Your task to perform on an android device: turn on airplane mode Image 0: 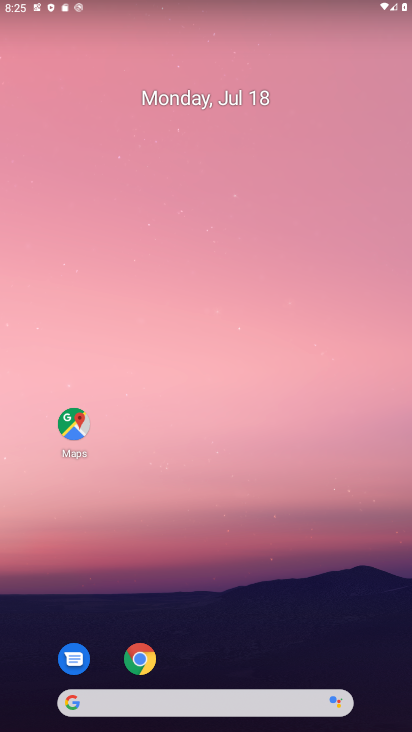
Step 0: click (145, 150)
Your task to perform on an android device: turn on airplane mode Image 1: 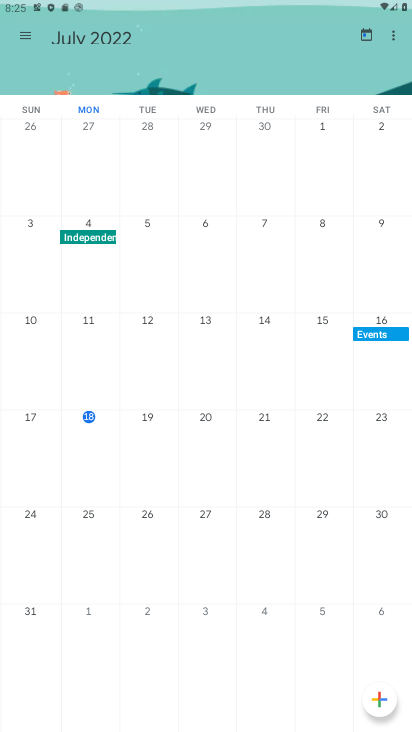
Step 1: press back button
Your task to perform on an android device: turn on airplane mode Image 2: 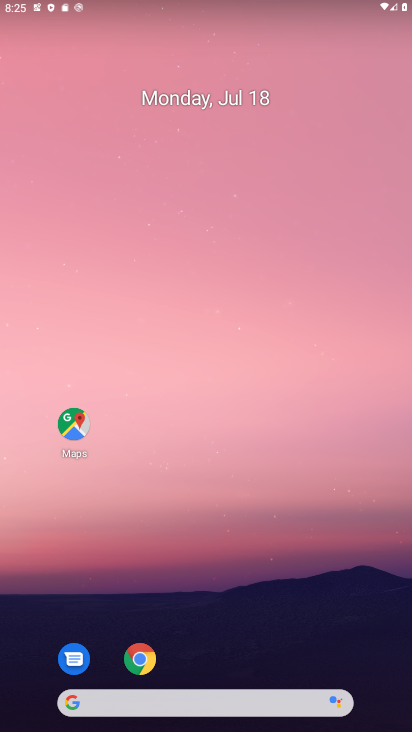
Step 2: drag from (223, 660) to (171, 220)
Your task to perform on an android device: turn on airplane mode Image 3: 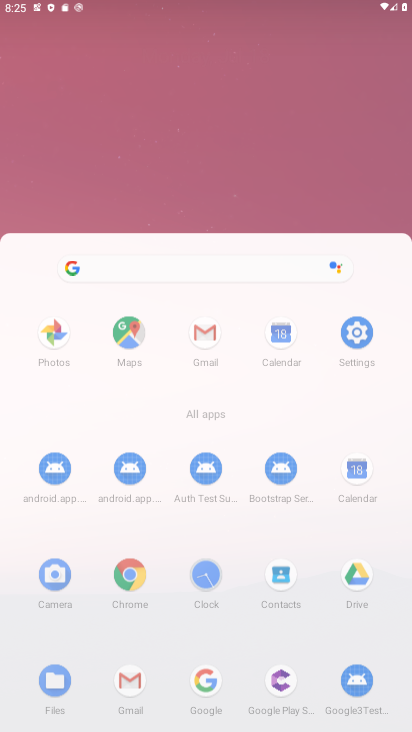
Step 3: drag from (258, 557) to (199, 166)
Your task to perform on an android device: turn on airplane mode Image 4: 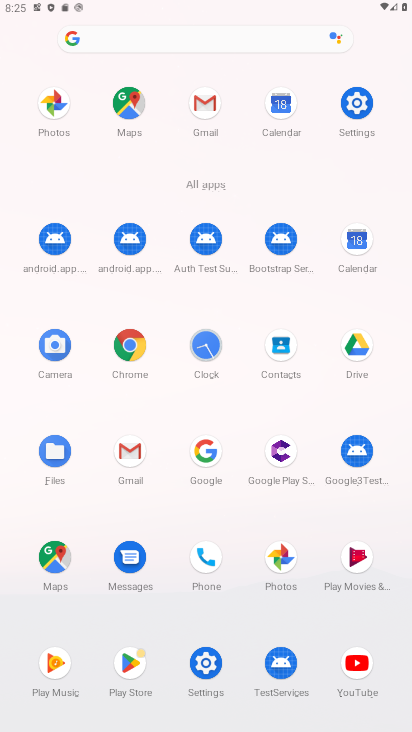
Step 4: click (350, 103)
Your task to perform on an android device: turn on airplane mode Image 5: 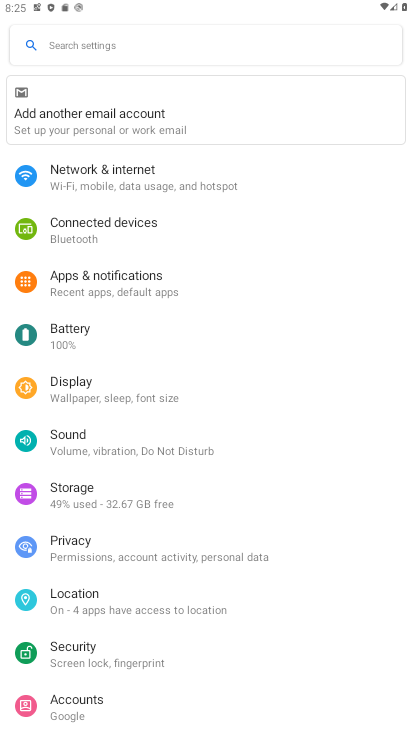
Step 5: click (96, 179)
Your task to perform on an android device: turn on airplane mode Image 6: 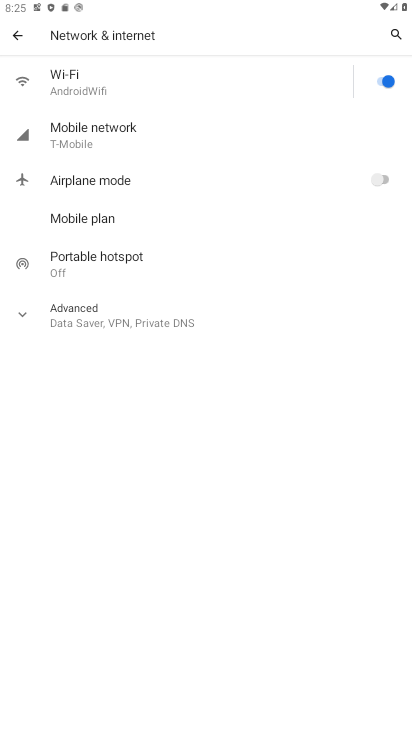
Step 6: click (368, 181)
Your task to perform on an android device: turn on airplane mode Image 7: 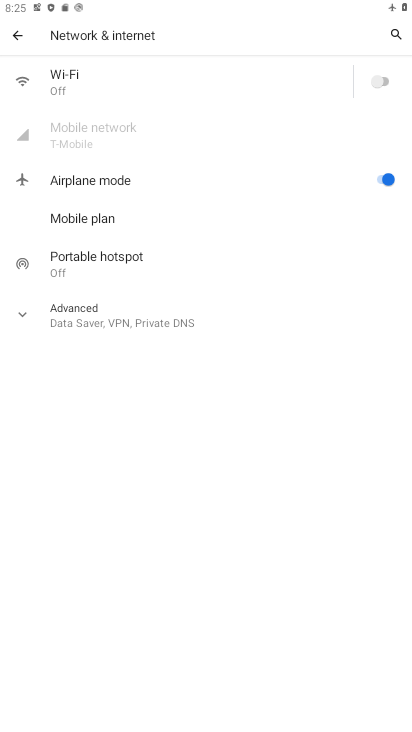
Step 7: task complete